Your task to perform on an android device: Find coffee shops on Maps Image 0: 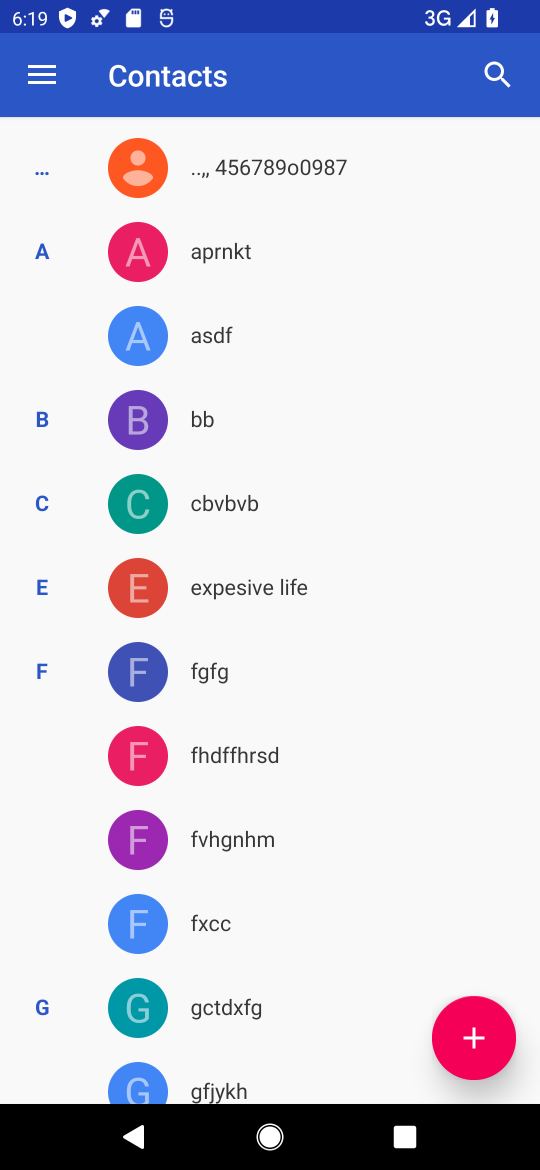
Step 0: press home button
Your task to perform on an android device: Find coffee shops on Maps Image 1: 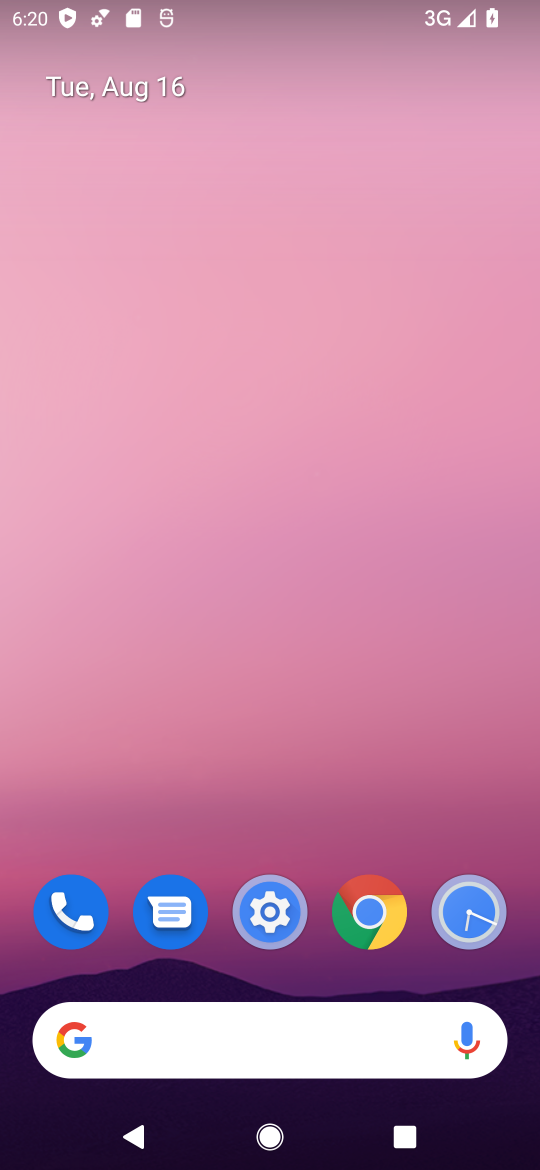
Step 1: drag from (425, 958) to (395, 115)
Your task to perform on an android device: Find coffee shops on Maps Image 2: 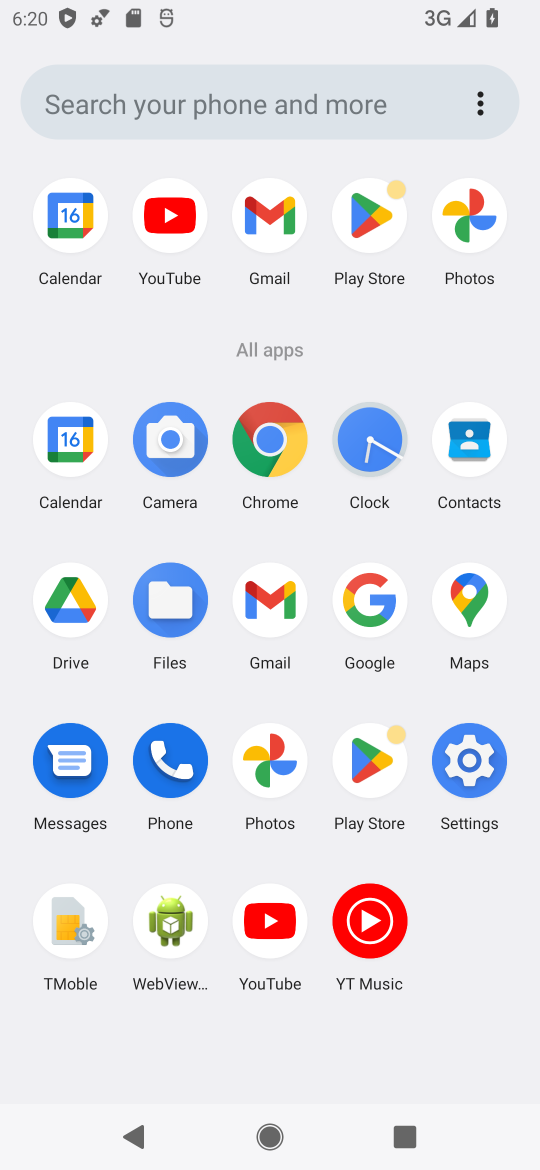
Step 2: click (468, 595)
Your task to perform on an android device: Find coffee shops on Maps Image 3: 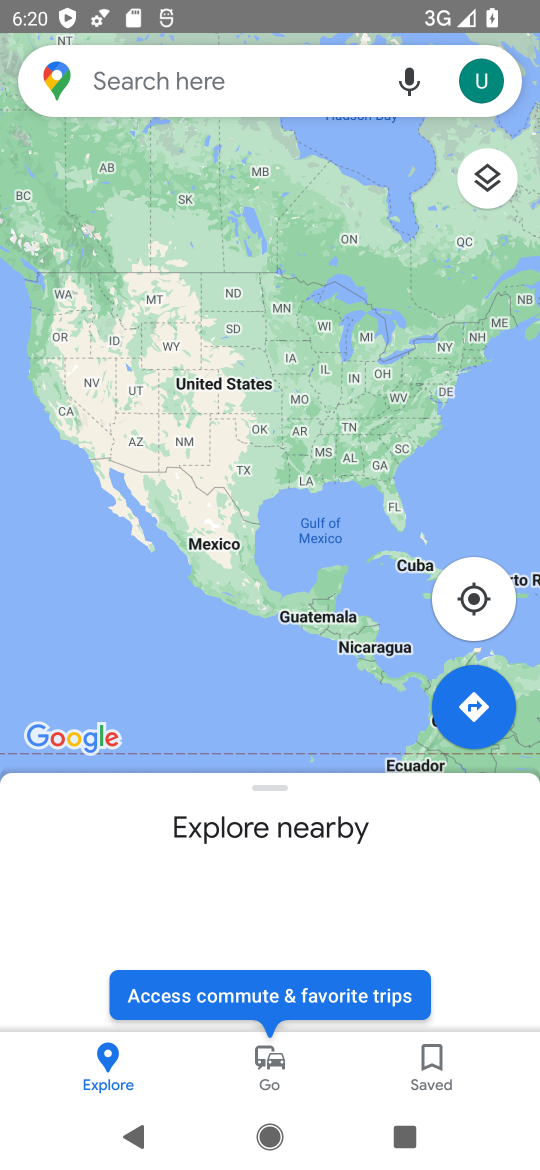
Step 3: click (242, 85)
Your task to perform on an android device: Find coffee shops on Maps Image 4: 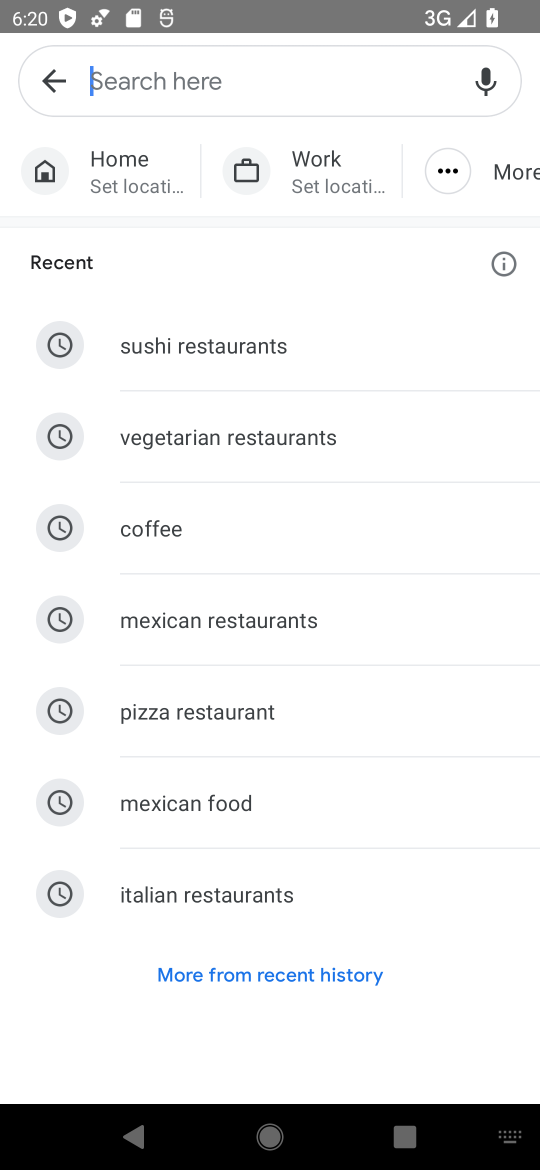
Step 4: type "coffee shops"
Your task to perform on an android device: Find coffee shops on Maps Image 5: 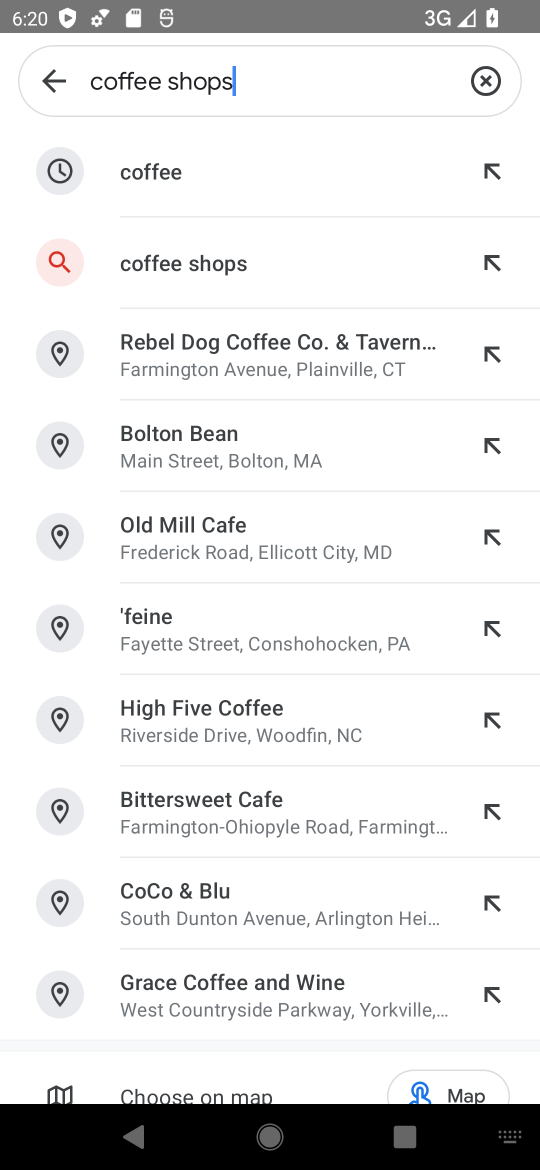
Step 5: click (186, 260)
Your task to perform on an android device: Find coffee shops on Maps Image 6: 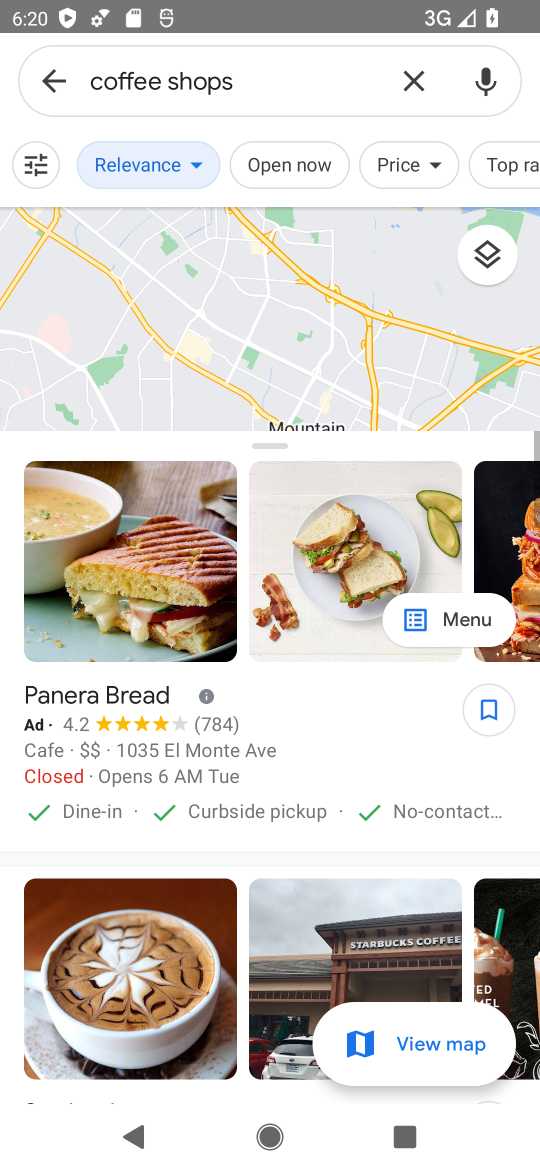
Step 6: task complete